Your task to perform on an android device: What's the weather today? Image 0: 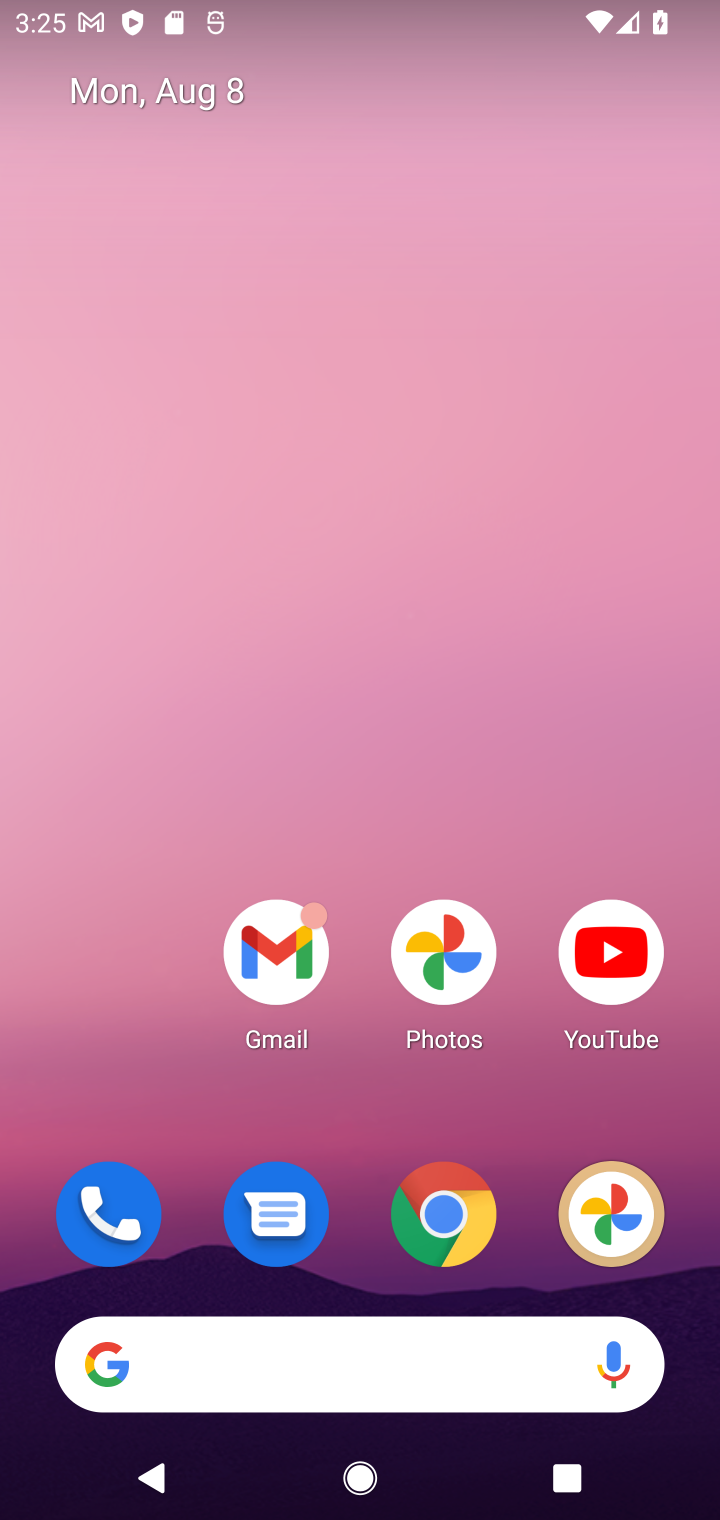
Step 0: drag from (347, 1092) to (347, 238)
Your task to perform on an android device: What's the weather today? Image 1: 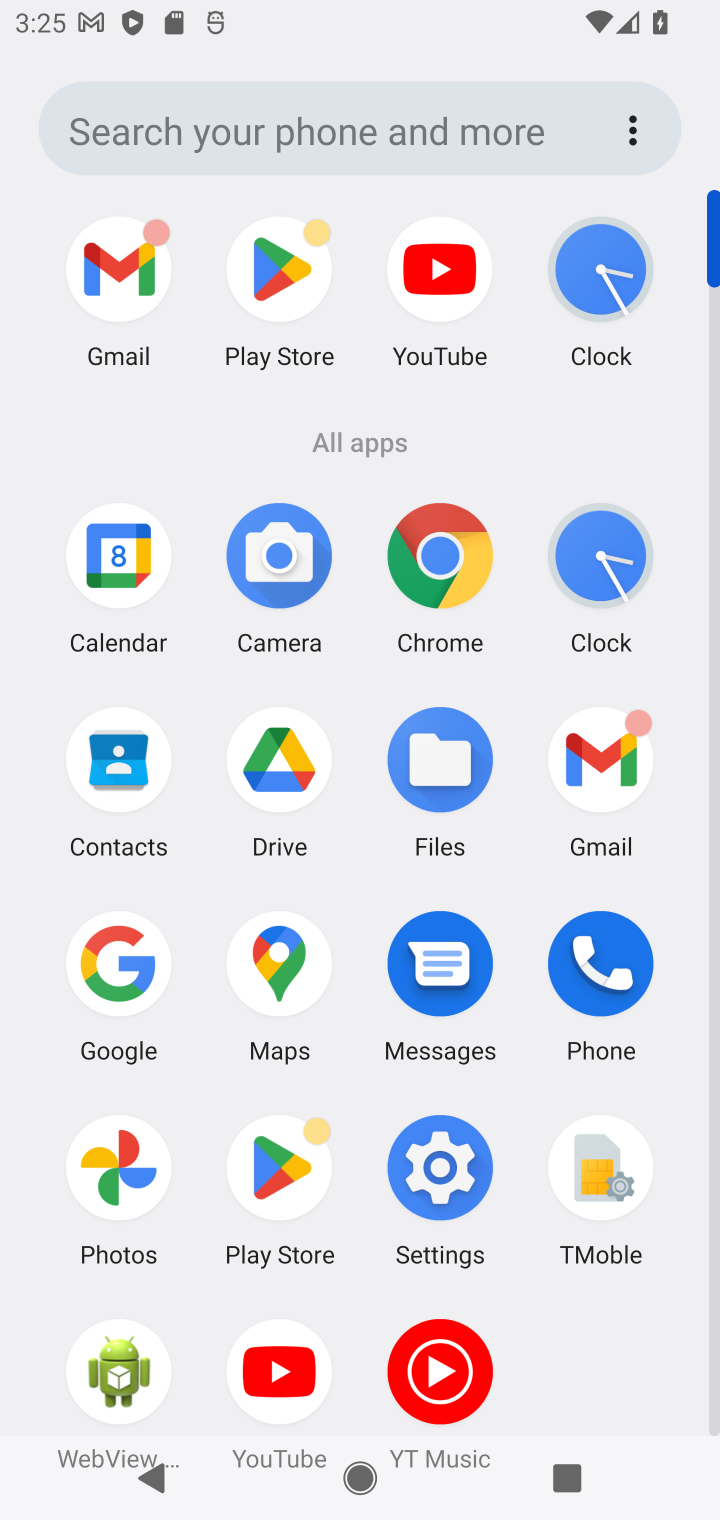
Step 1: click (129, 959)
Your task to perform on an android device: What's the weather today? Image 2: 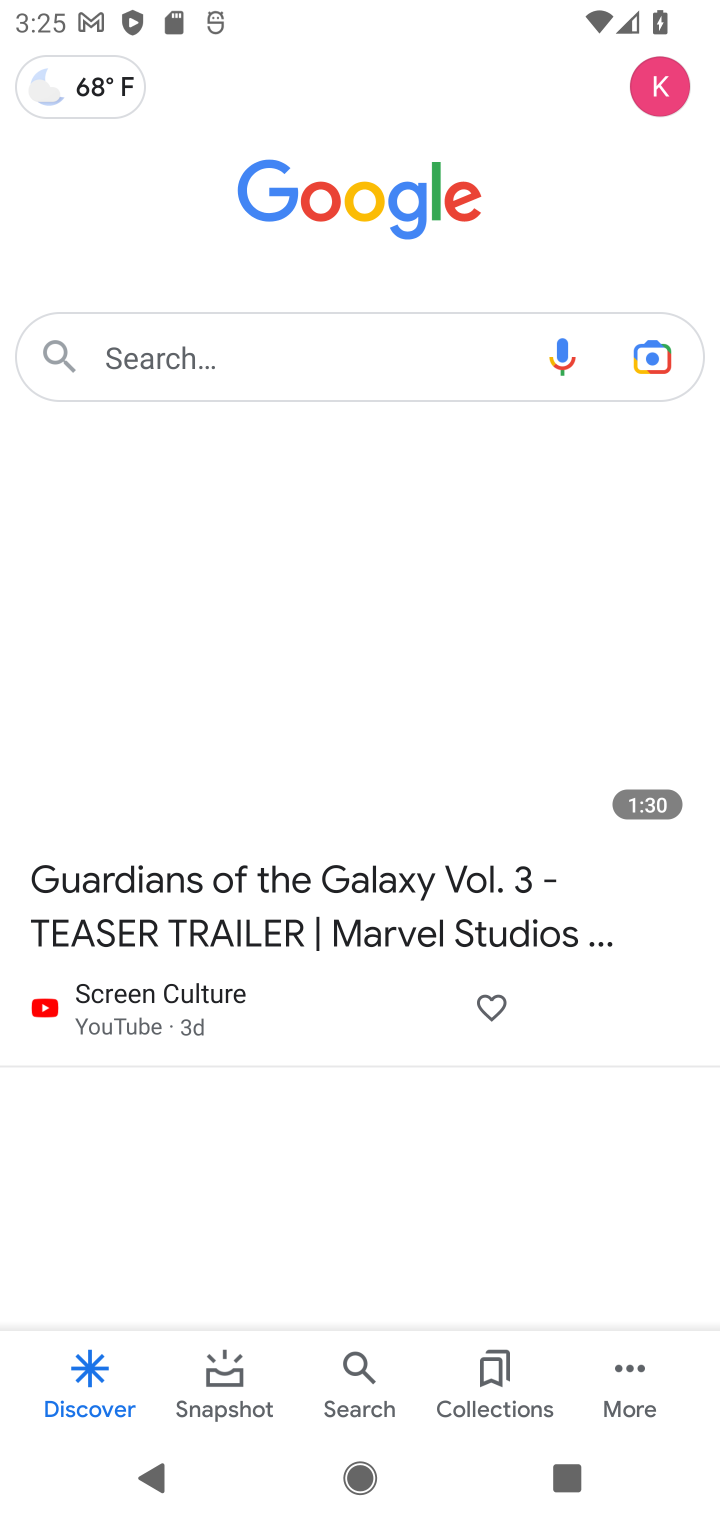
Step 2: click (398, 349)
Your task to perform on an android device: What's the weather today? Image 3: 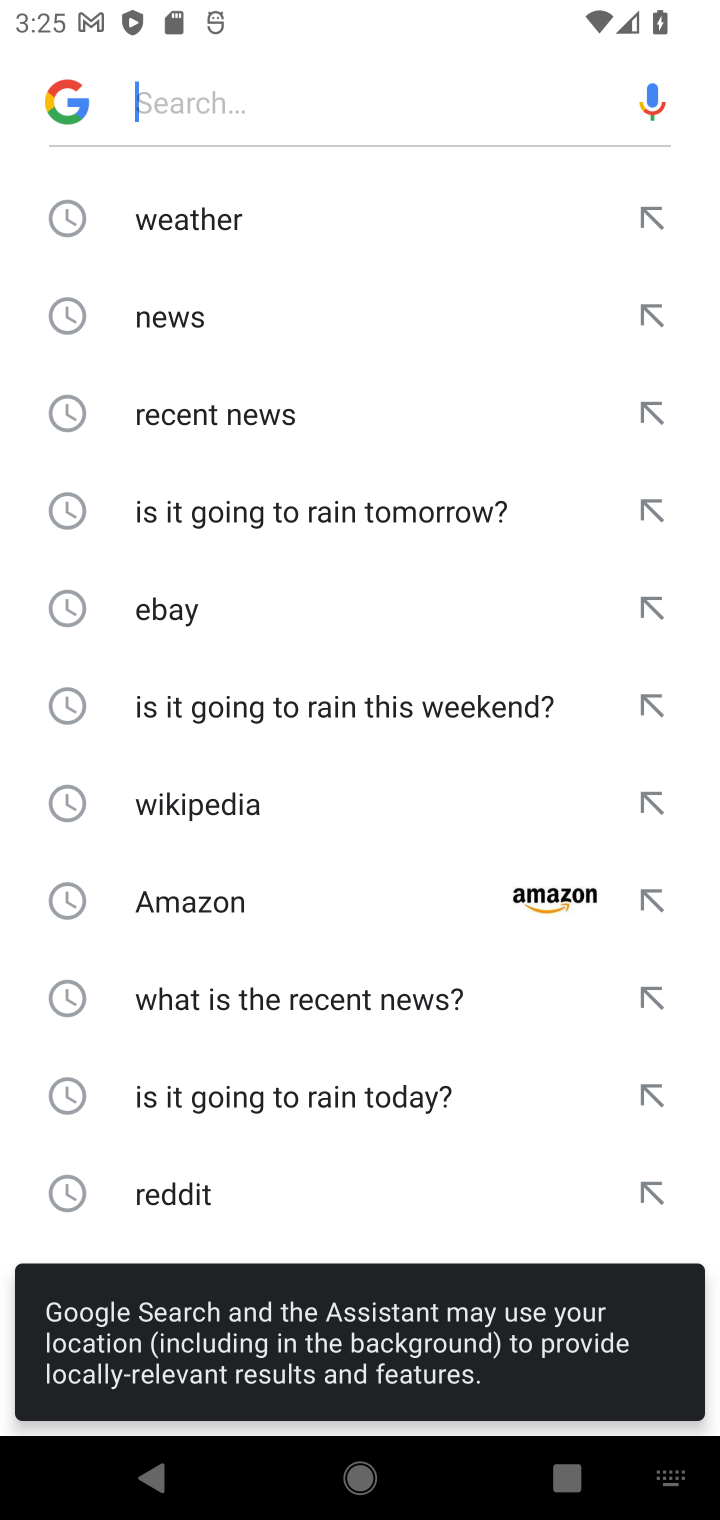
Step 3: click (187, 216)
Your task to perform on an android device: What's the weather today? Image 4: 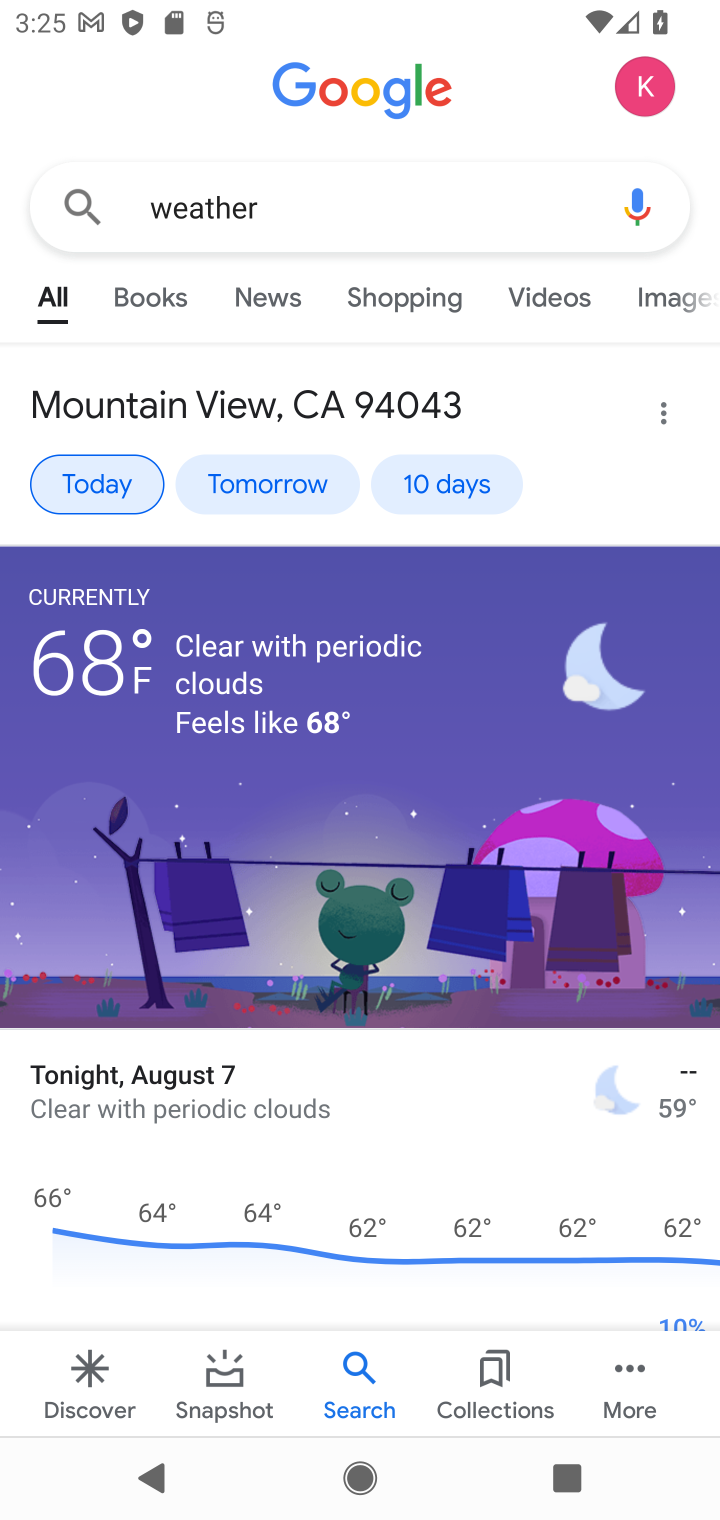
Step 4: click (98, 493)
Your task to perform on an android device: What's the weather today? Image 5: 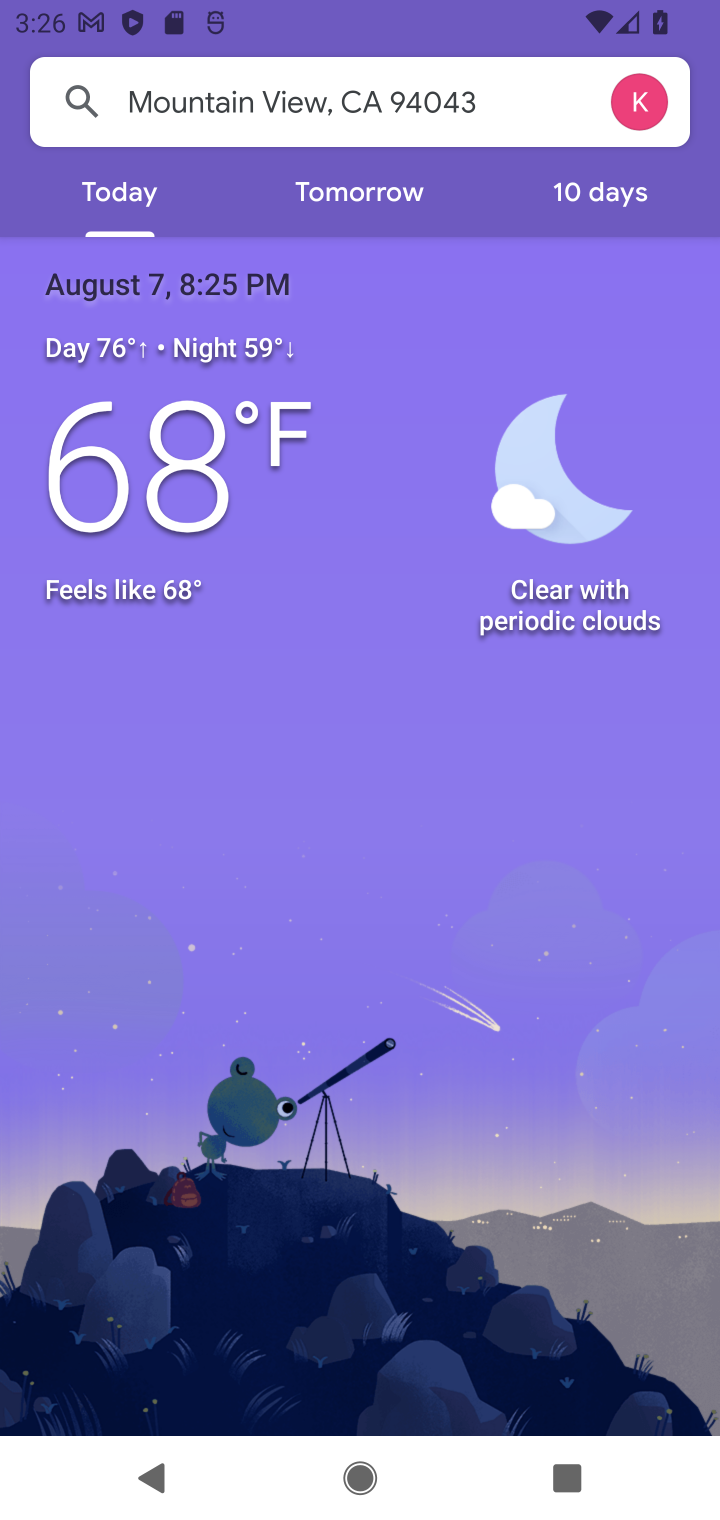
Step 5: task complete